Your task to perform on an android device: snooze an email in the gmail app Image 0: 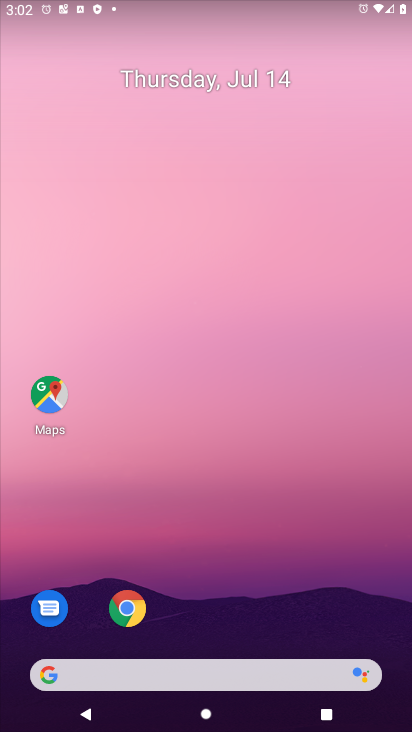
Step 0: drag from (372, 617) to (328, 59)
Your task to perform on an android device: snooze an email in the gmail app Image 1: 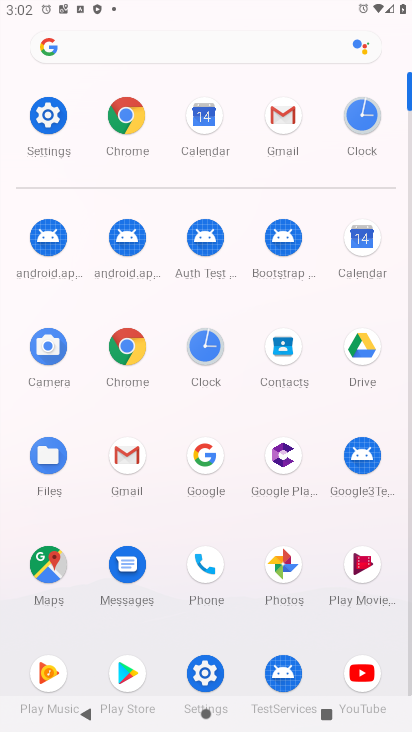
Step 1: click (126, 455)
Your task to perform on an android device: snooze an email in the gmail app Image 2: 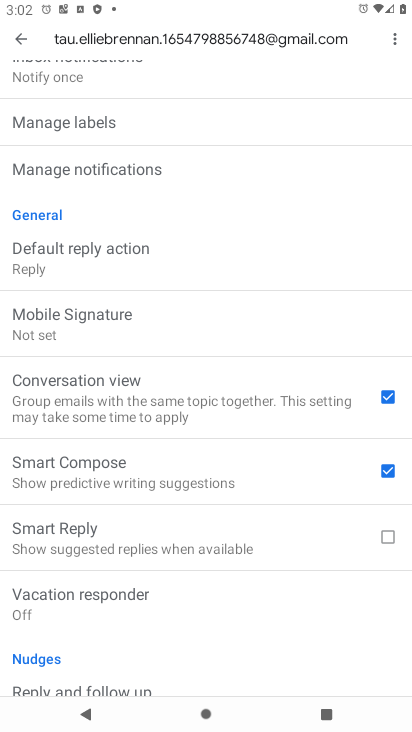
Step 2: press back button
Your task to perform on an android device: snooze an email in the gmail app Image 3: 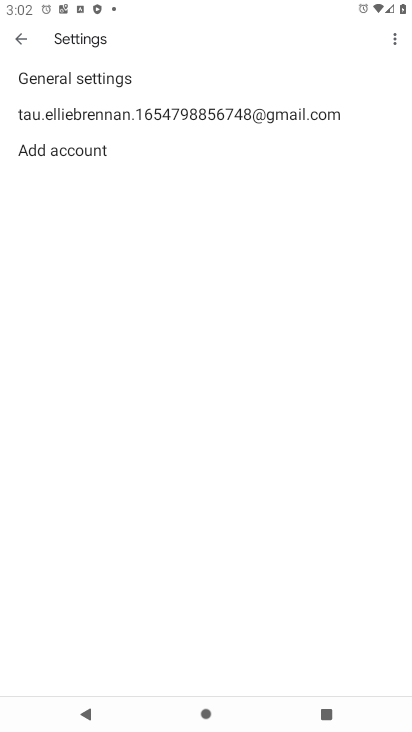
Step 3: press back button
Your task to perform on an android device: snooze an email in the gmail app Image 4: 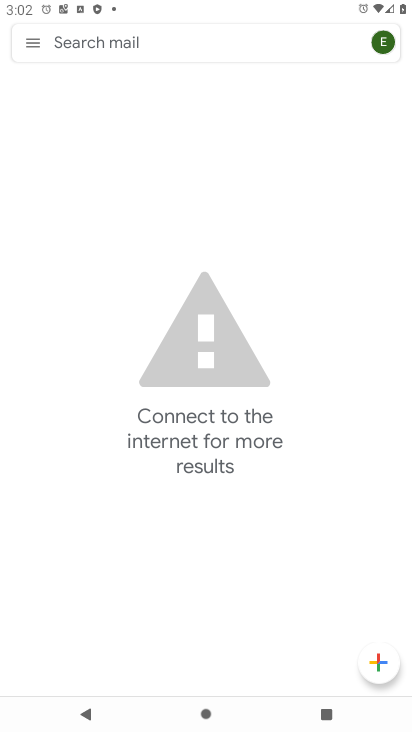
Step 4: click (34, 47)
Your task to perform on an android device: snooze an email in the gmail app Image 5: 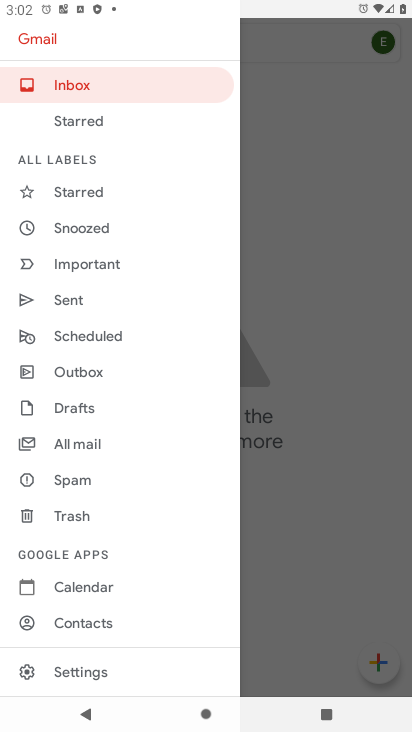
Step 5: click (77, 441)
Your task to perform on an android device: snooze an email in the gmail app Image 6: 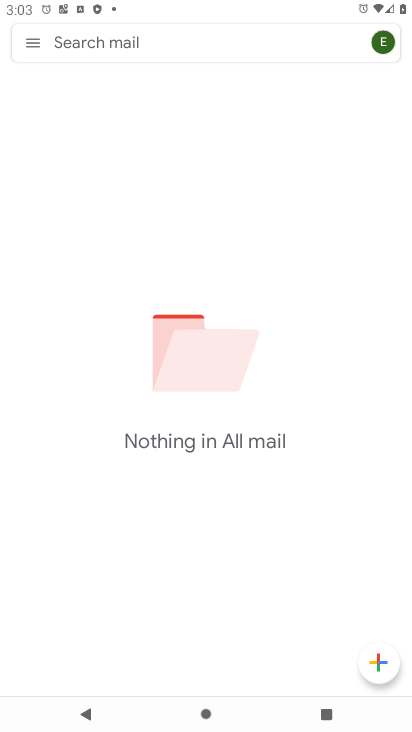
Step 6: task complete